Your task to perform on an android device: change notifications settings Image 0: 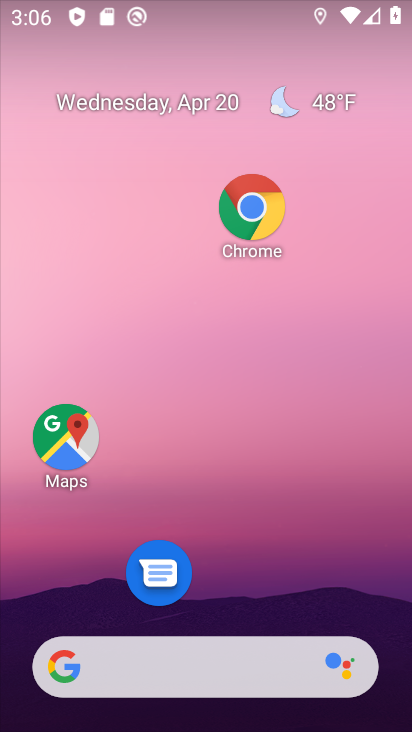
Step 0: drag from (336, 579) to (330, 319)
Your task to perform on an android device: change notifications settings Image 1: 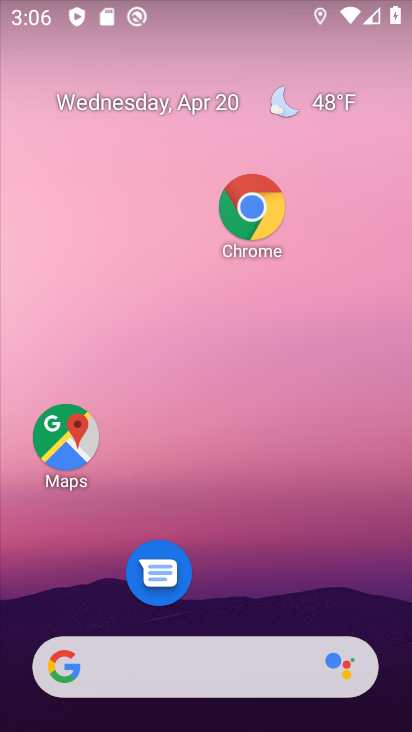
Step 1: click (266, 491)
Your task to perform on an android device: change notifications settings Image 2: 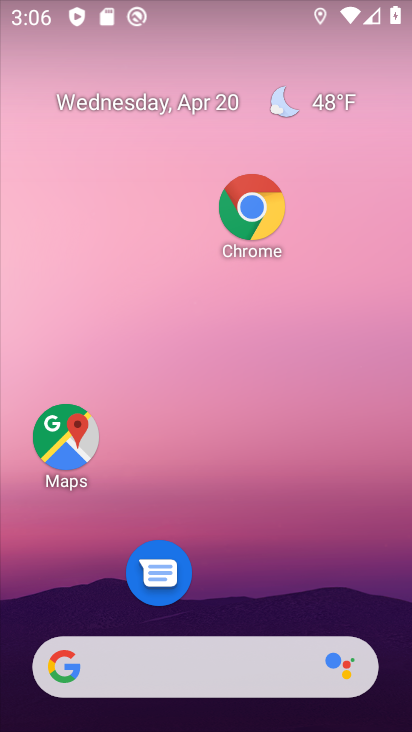
Step 2: drag from (243, 621) to (262, 144)
Your task to perform on an android device: change notifications settings Image 3: 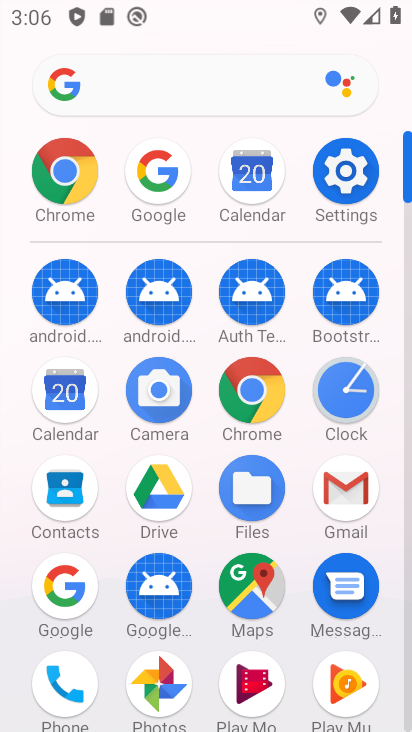
Step 3: click (351, 171)
Your task to perform on an android device: change notifications settings Image 4: 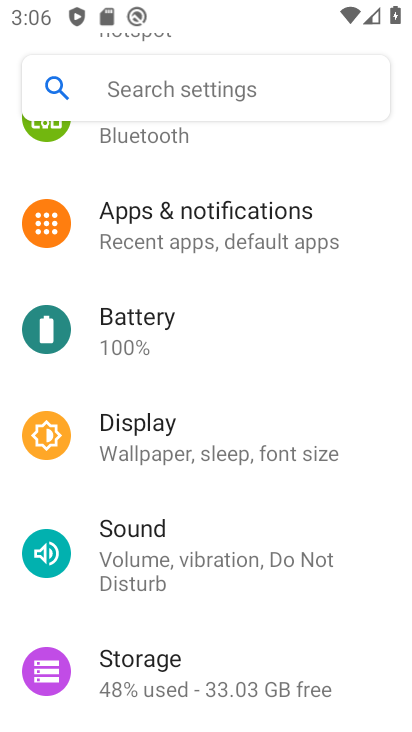
Step 4: click (281, 240)
Your task to perform on an android device: change notifications settings Image 5: 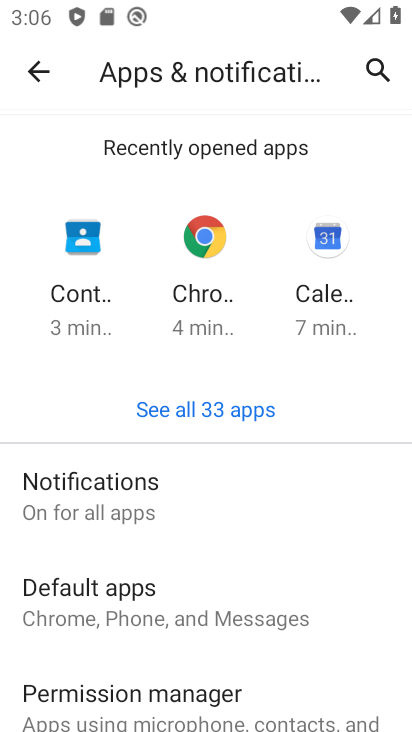
Step 5: click (242, 501)
Your task to perform on an android device: change notifications settings Image 6: 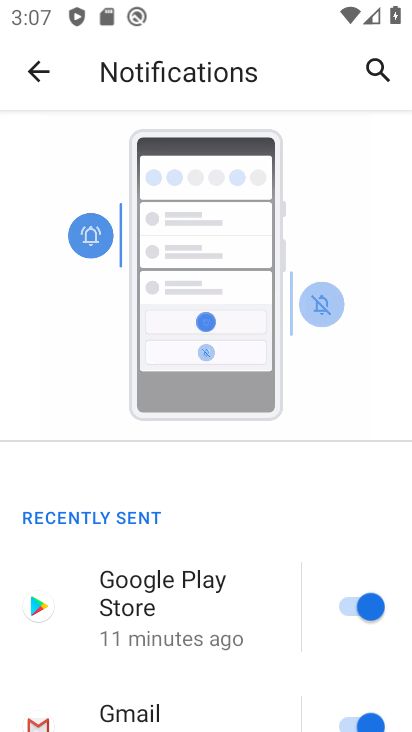
Step 6: click (346, 608)
Your task to perform on an android device: change notifications settings Image 7: 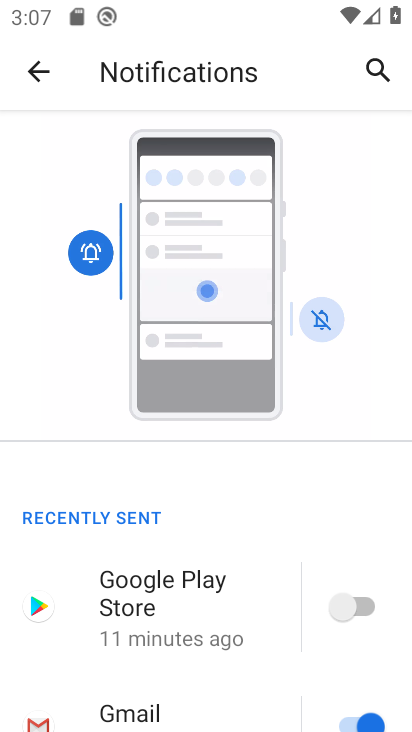
Step 7: task complete